Your task to perform on an android device: set the timer Image 0: 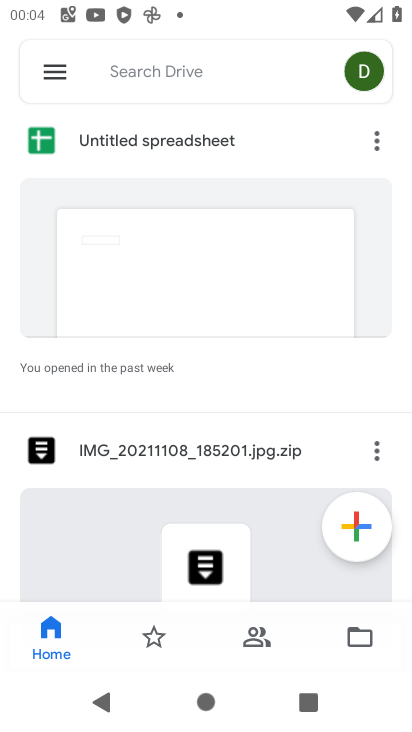
Step 0: press home button
Your task to perform on an android device: set the timer Image 1: 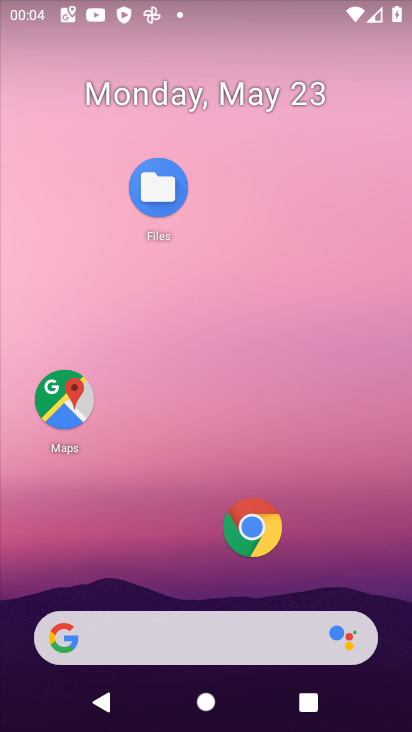
Step 1: drag from (342, 528) to (293, 83)
Your task to perform on an android device: set the timer Image 2: 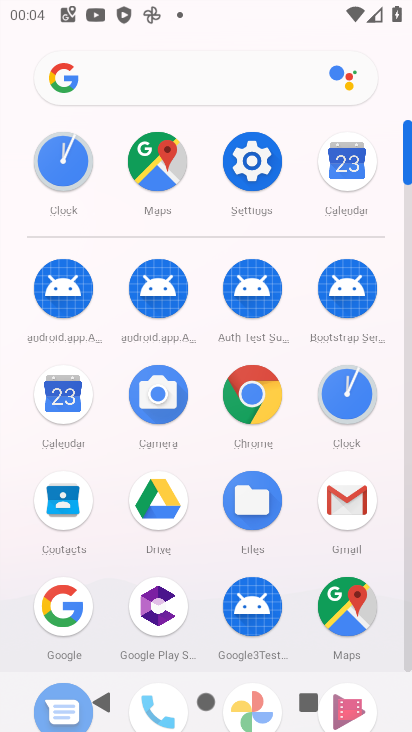
Step 2: click (346, 392)
Your task to perform on an android device: set the timer Image 3: 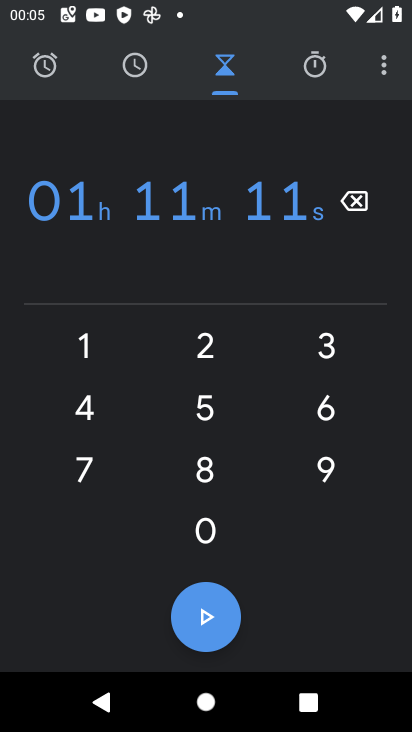
Step 3: task complete